Your task to perform on an android device: turn off smart reply in the gmail app Image 0: 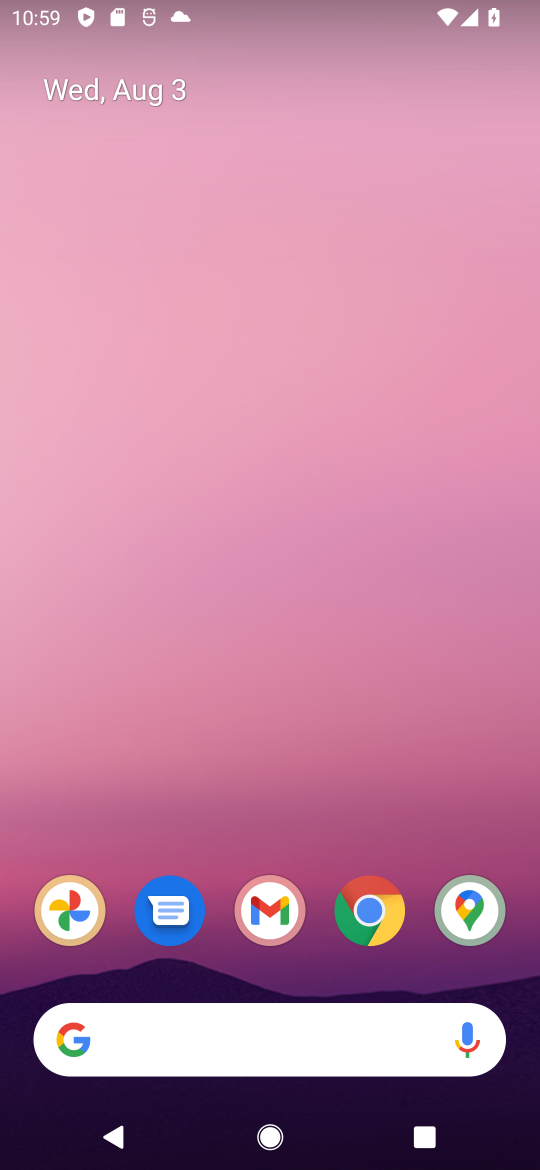
Step 0: press home button
Your task to perform on an android device: turn off smart reply in the gmail app Image 1: 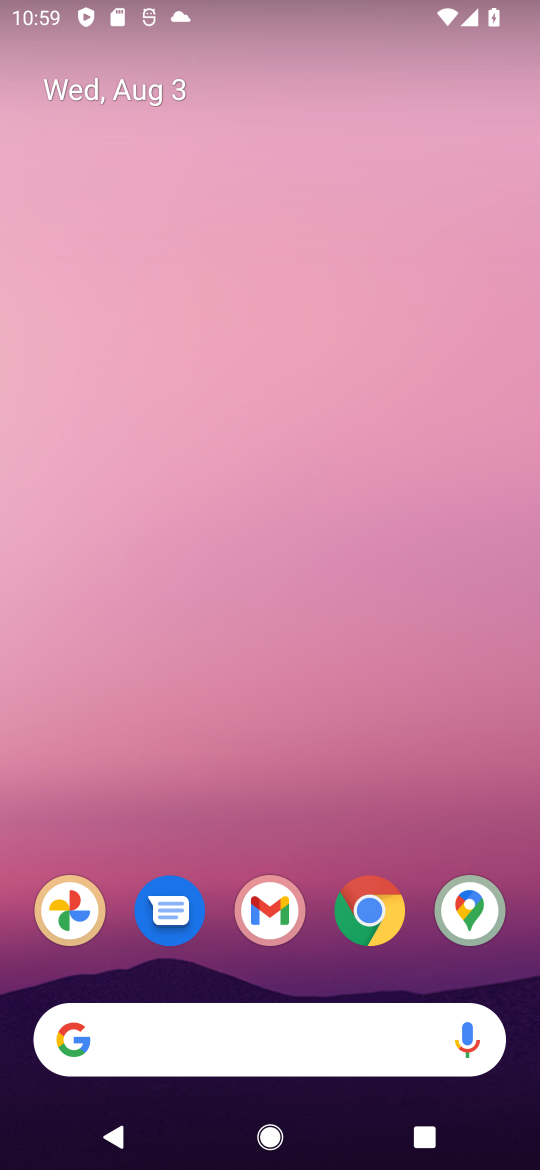
Step 1: click (268, 905)
Your task to perform on an android device: turn off smart reply in the gmail app Image 2: 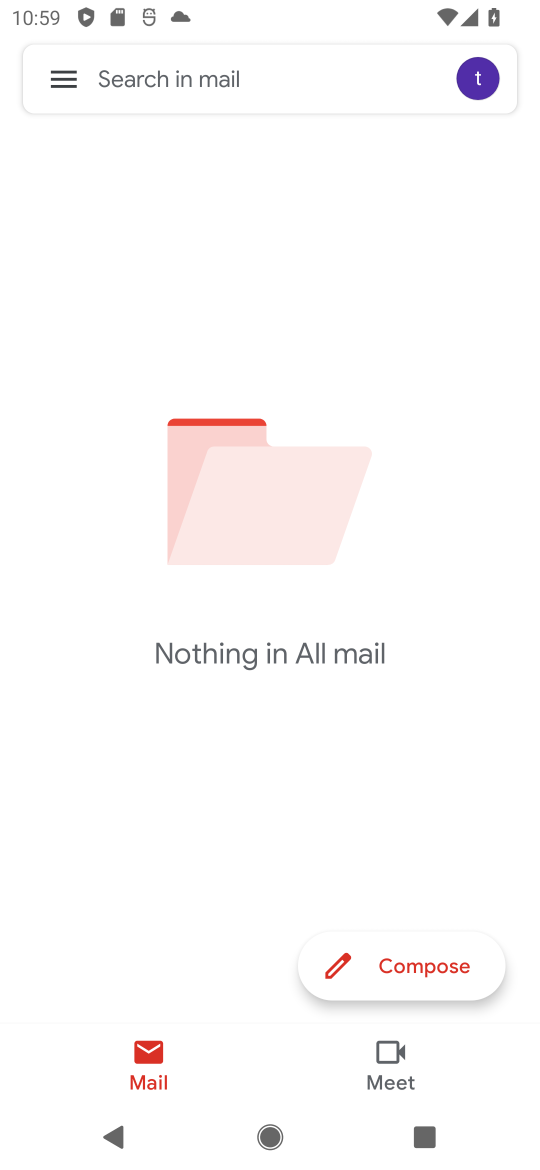
Step 2: click (54, 96)
Your task to perform on an android device: turn off smart reply in the gmail app Image 3: 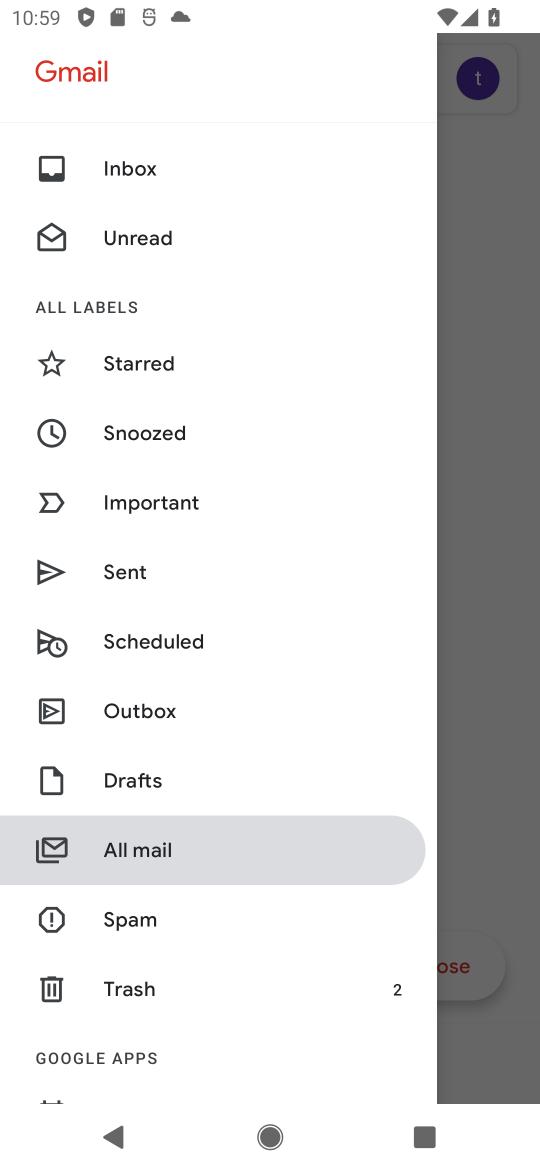
Step 3: drag from (176, 1014) to (183, 216)
Your task to perform on an android device: turn off smart reply in the gmail app Image 4: 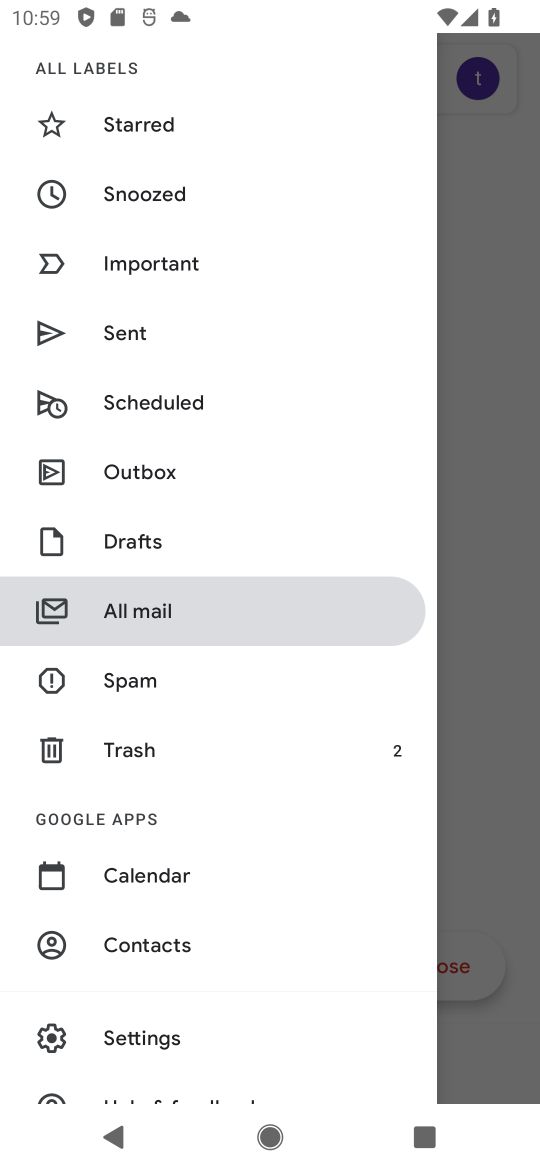
Step 4: click (210, 1033)
Your task to perform on an android device: turn off smart reply in the gmail app Image 5: 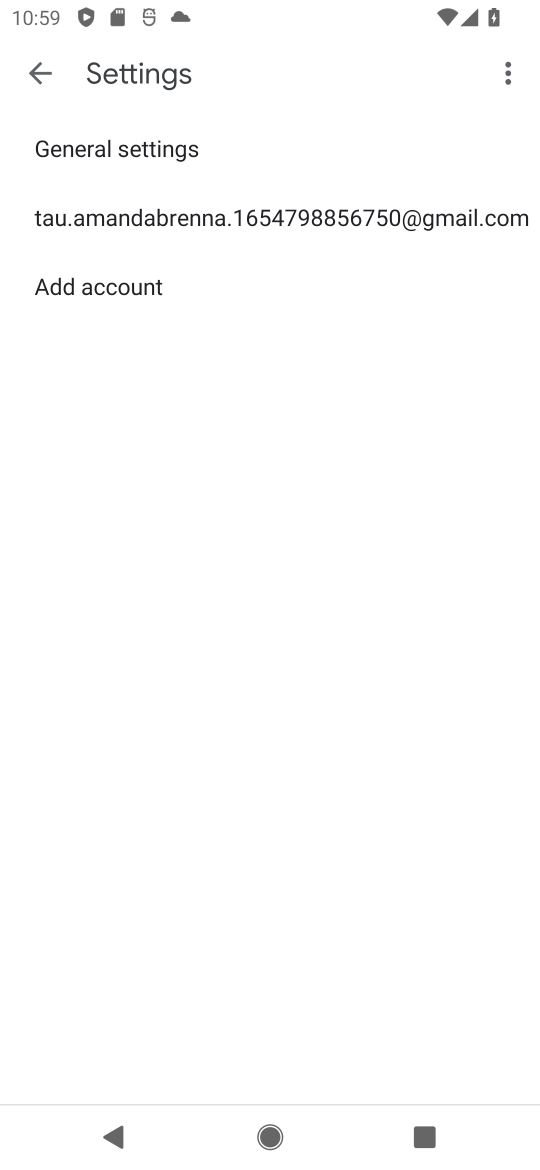
Step 5: click (253, 191)
Your task to perform on an android device: turn off smart reply in the gmail app Image 6: 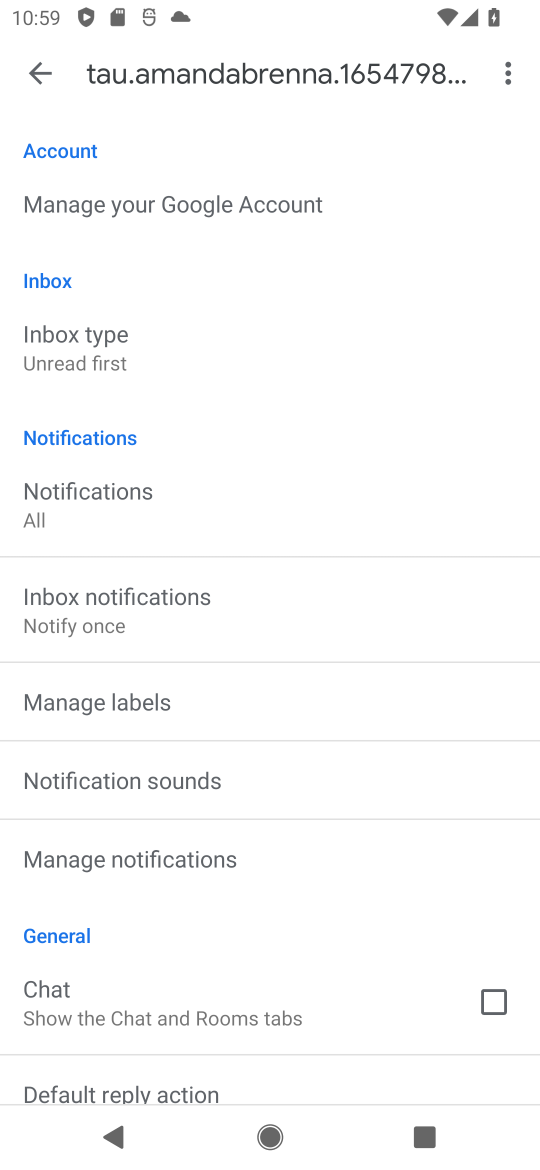
Step 6: drag from (194, 973) to (264, 135)
Your task to perform on an android device: turn off smart reply in the gmail app Image 7: 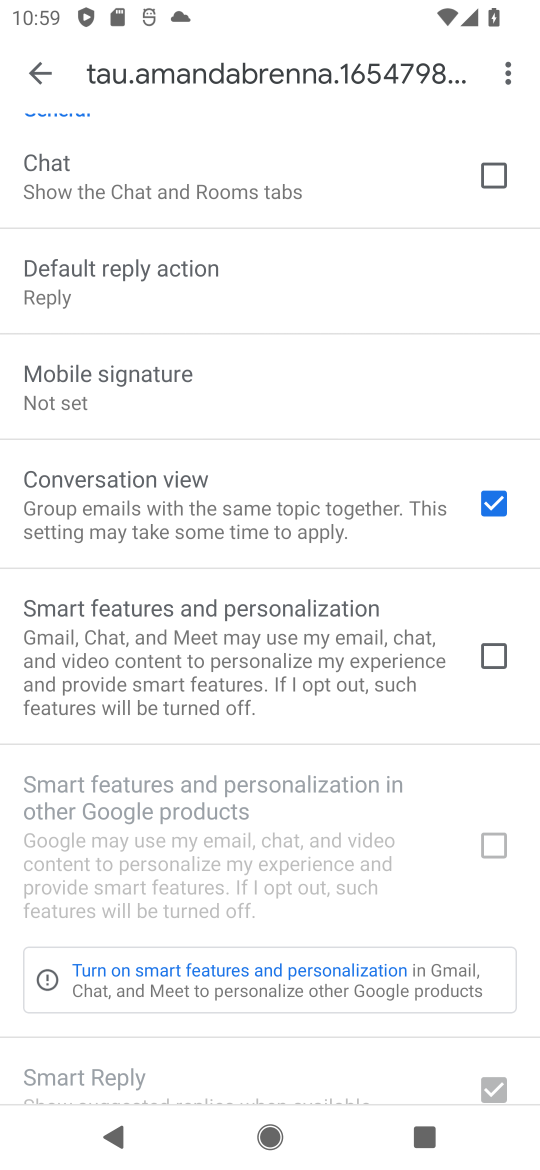
Step 7: drag from (250, 346) to (284, 879)
Your task to perform on an android device: turn off smart reply in the gmail app Image 8: 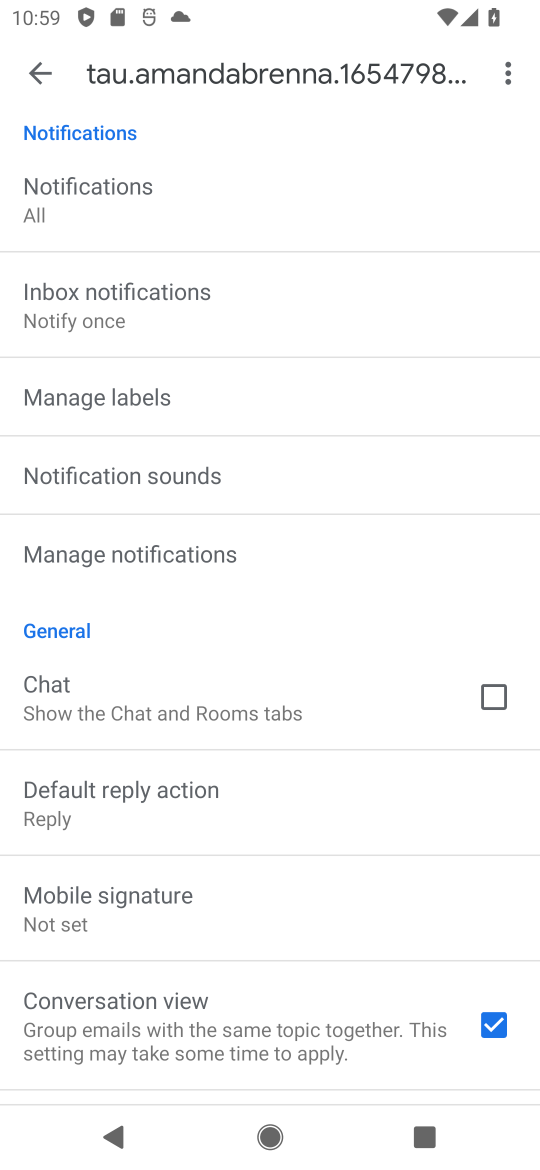
Step 8: drag from (174, 292) to (184, 933)
Your task to perform on an android device: turn off smart reply in the gmail app Image 9: 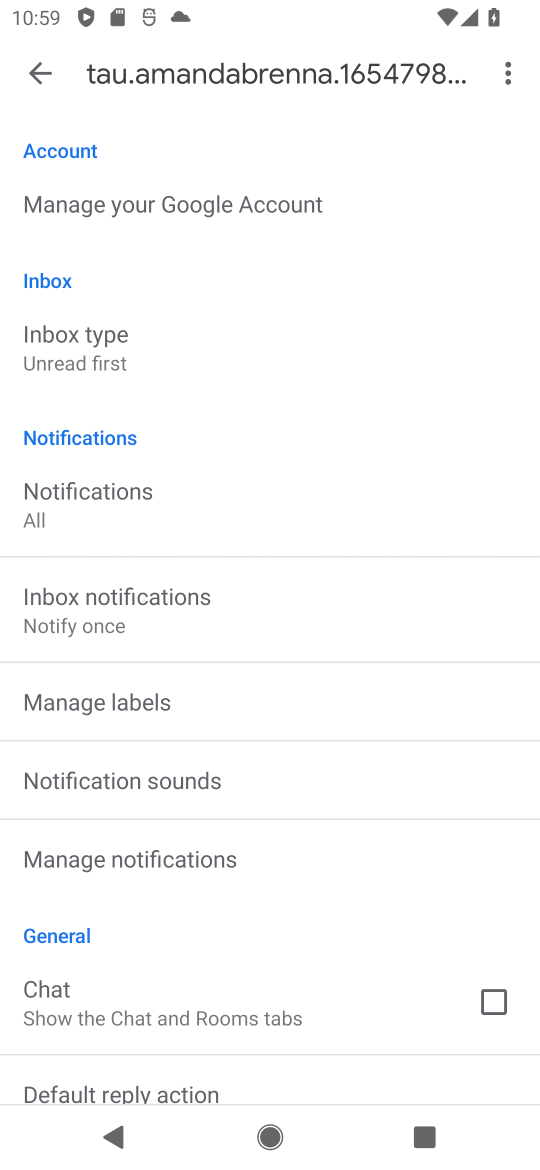
Step 9: drag from (253, 929) to (295, 183)
Your task to perform on an android device: turn off smart reply in the gmail app Image 10: 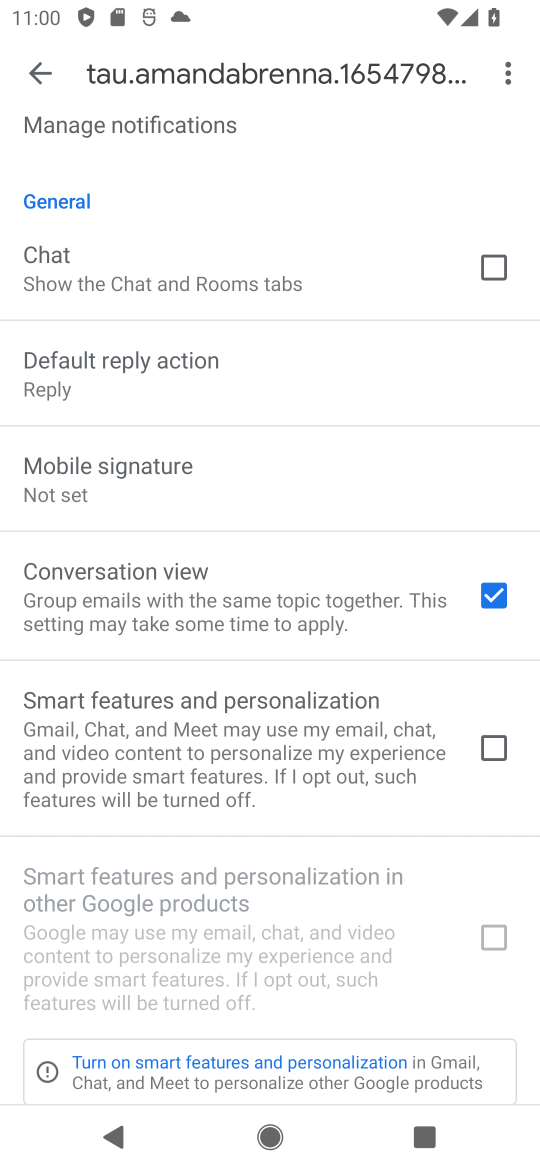
Step 10: drag from (282, 961) to (319, 307)
Your task to perform on an android device: turn off smart reply in the gmail app Image 11: 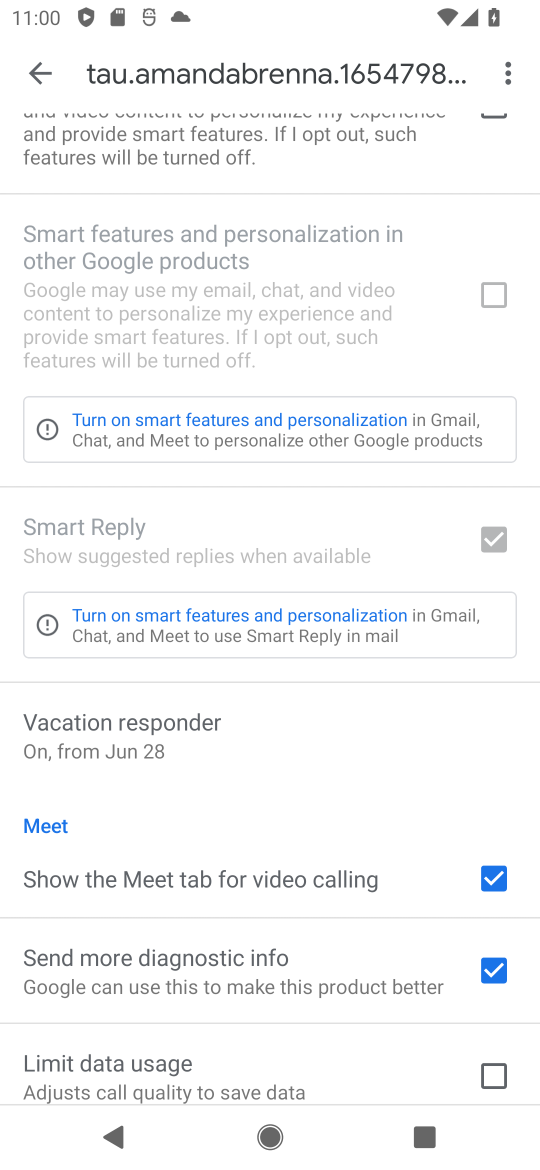
Step 11: click (482, 693)
Your task to perform on an android device: turn off smart reply in the gmail app Image 12: 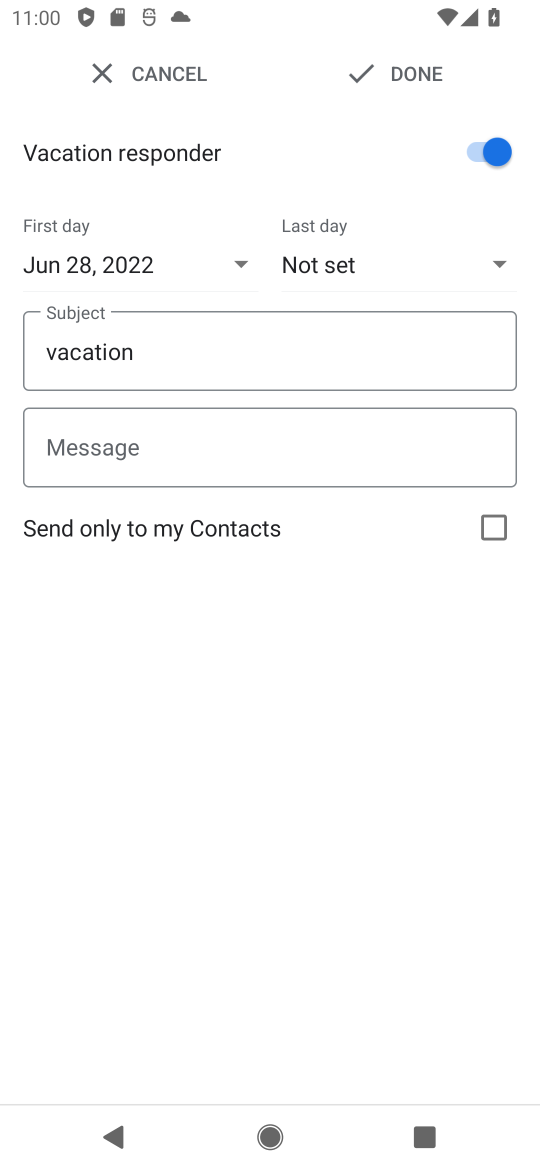
Step 12: click (508, 536)
Your task to perform on an android device: turn off smart reply in the gmail app Image 13: 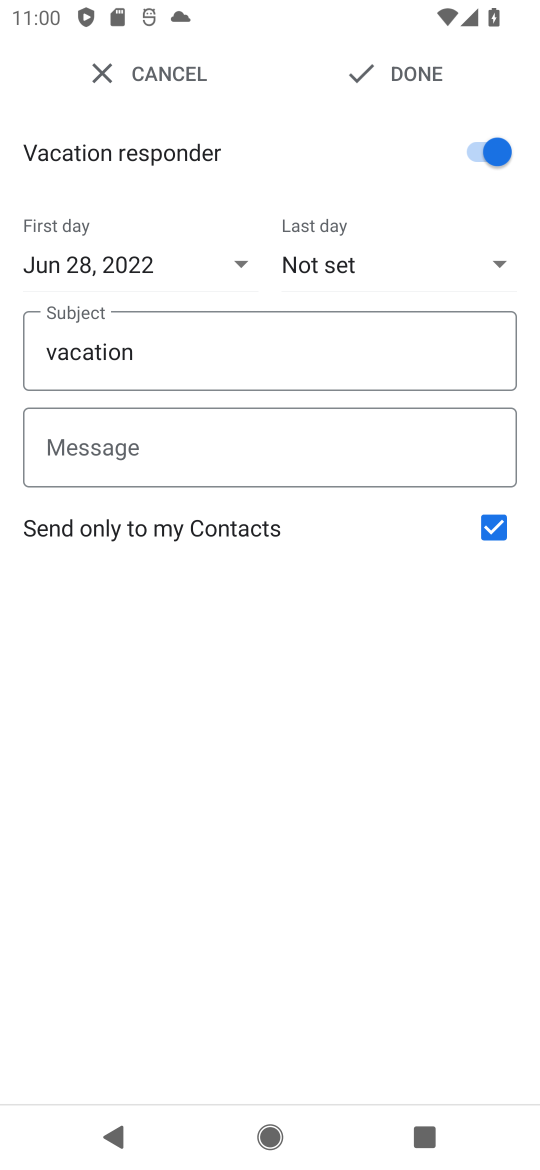
Step 13: task complete